Your task to perform on an android device: search for starred emails in the gmail app Image 0: 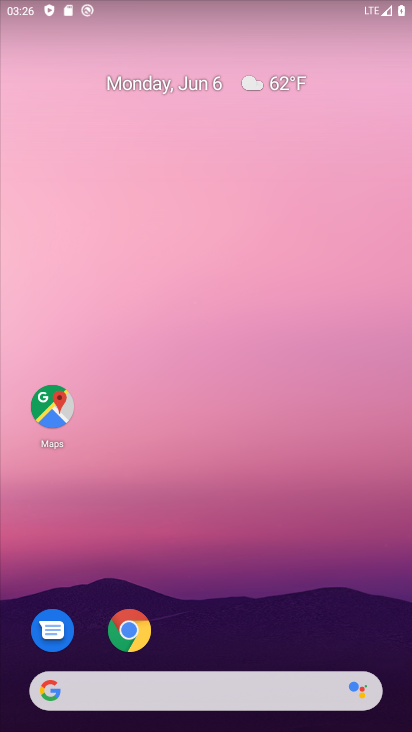
Step 0: press home button
Your task to perform on an android device: search for starred emails in the gmail app Image 1: 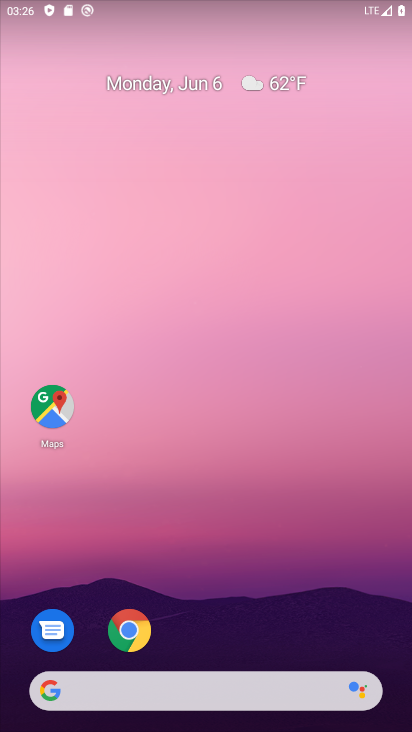
Step 1: drag from (301, 604) to (139, 55)
Your task to perform on an android device: search for starred emails in the gmail app Image 2: 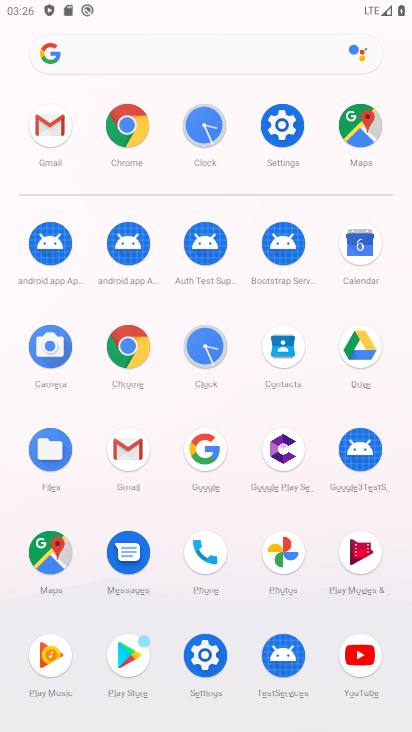
Step 2: click (77, 132)
Your task to perform on an android device: search for starred emails in the gmail app Image 3: 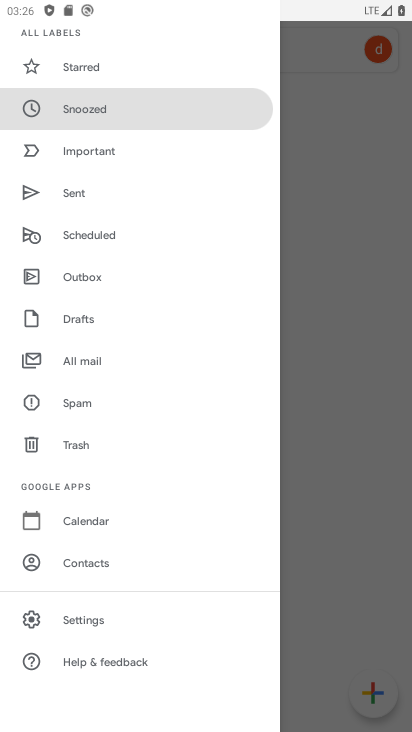
Step 3: click (98, 71)
Your task to perform on an android device: search for starred emails in the gmail app Image 4: 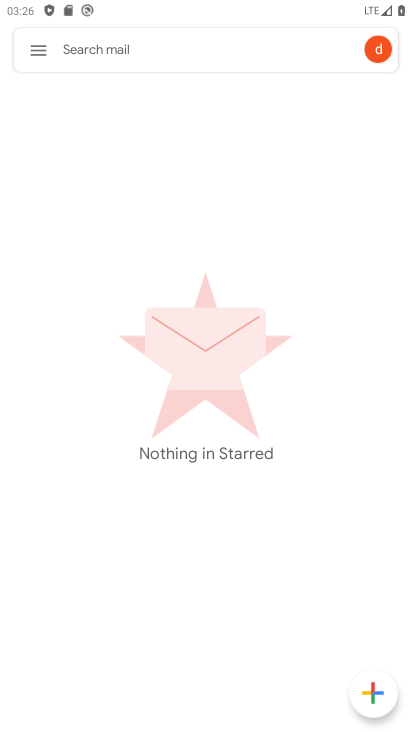
Step 4: task complete